Your task to perform on an android device: Go to network settings Image 0: 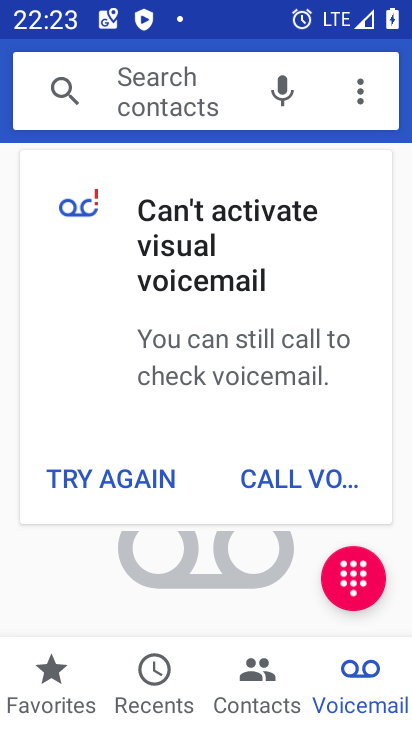
Step 0: press home button
Your task to perform on an android device: Go to network settings Image 1: 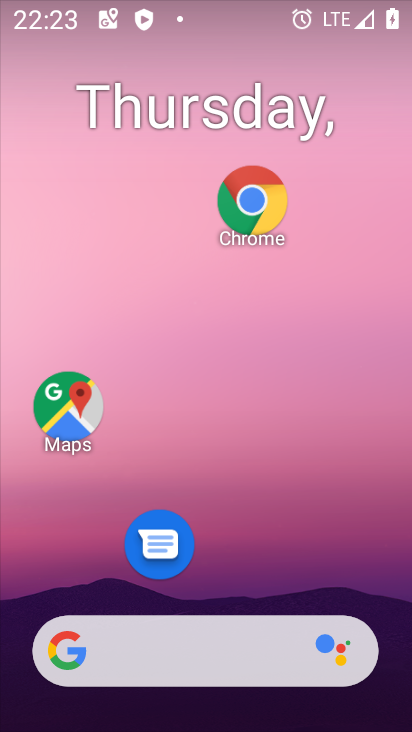
Step 1: drag from (210, 568) to (219, 71)
Your task to perform on an android device: Go to network settings Image 2: 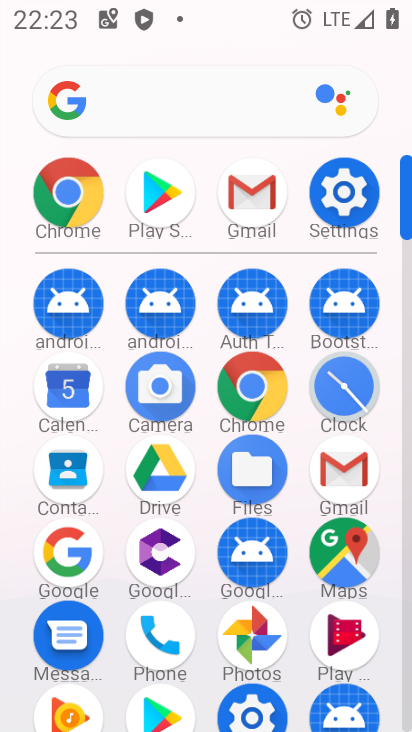
Step 2: click (321, 203)
Your task to perform on an android device: Go to network settings Image 3: 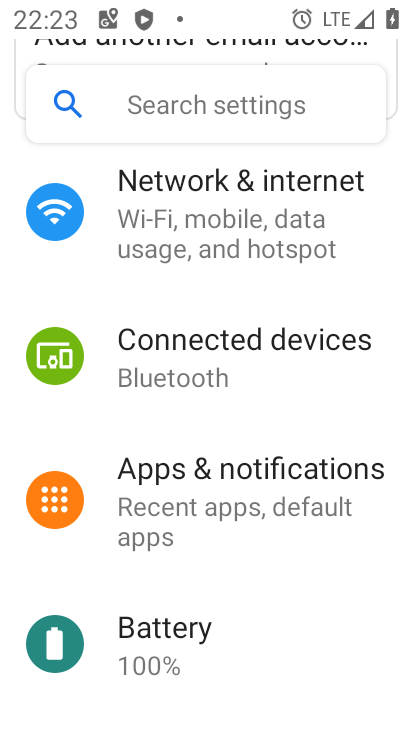
Step 3: click (227, 251)
Your task to perform on an android device: Go to network settings Image 4: 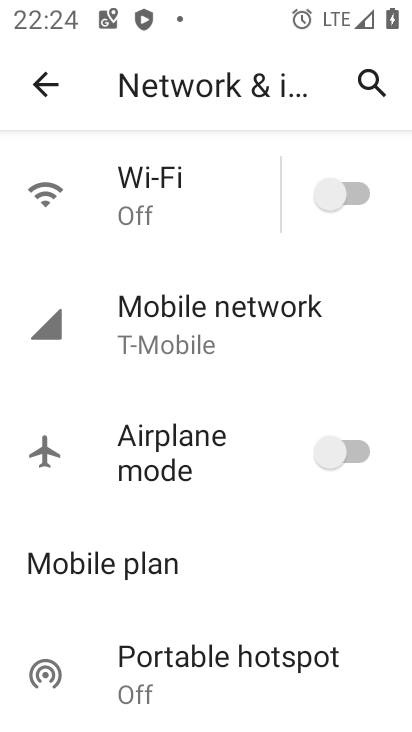
Step 4: click (184, 347)
Your task to perform on an android device: Go to network settings Image 5: 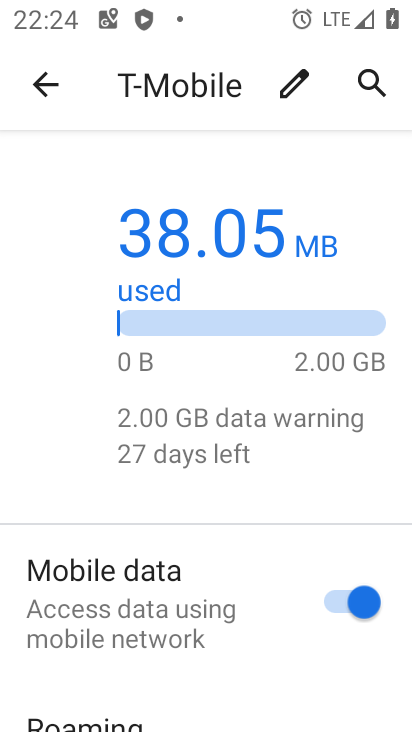
Step 5: task complete